Your task to perform on an android device: search for starred emails in the gmail app Image 0: 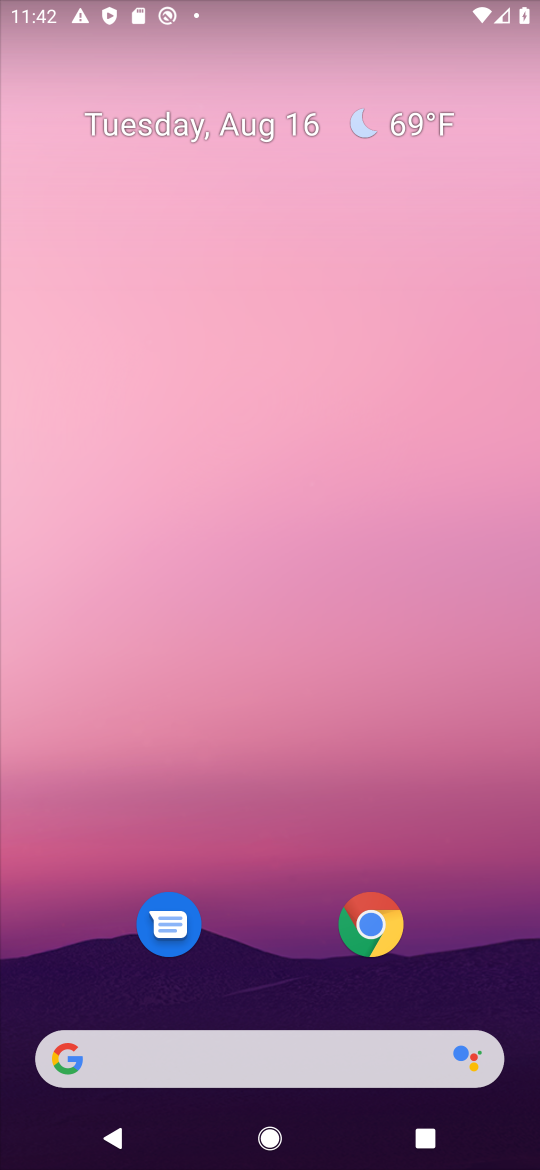
Step 0: drag from (265, 773) to (221, 311)
Your task to perform on an android device: search for starred emails in the gmail app Image 1: 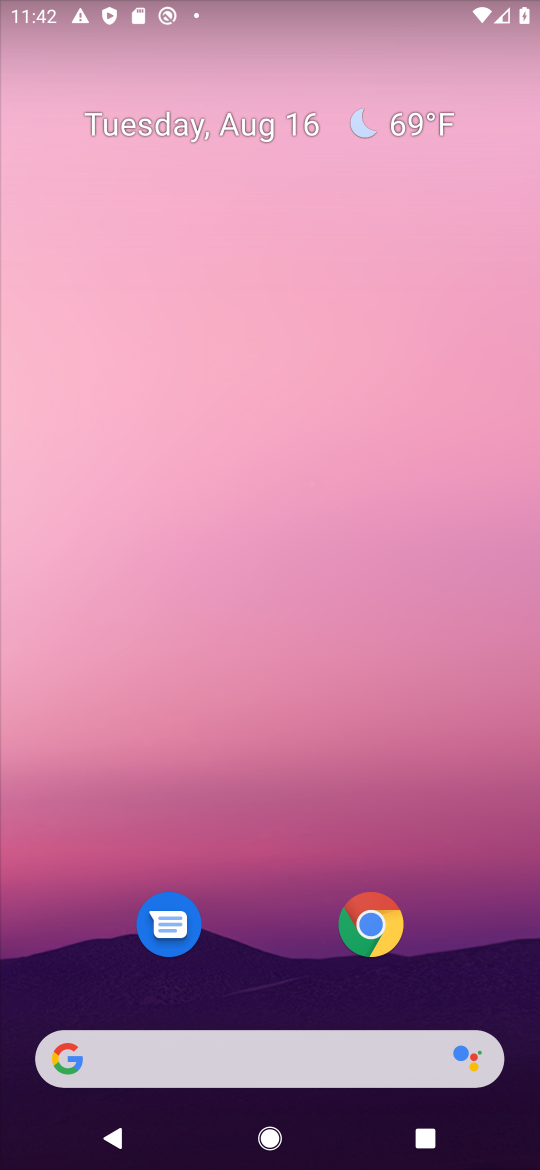
Step 1: drag from (266, 992) to (310, 11)
Your task to perform on an android device: search for starred emails in the gmail app Image 2: 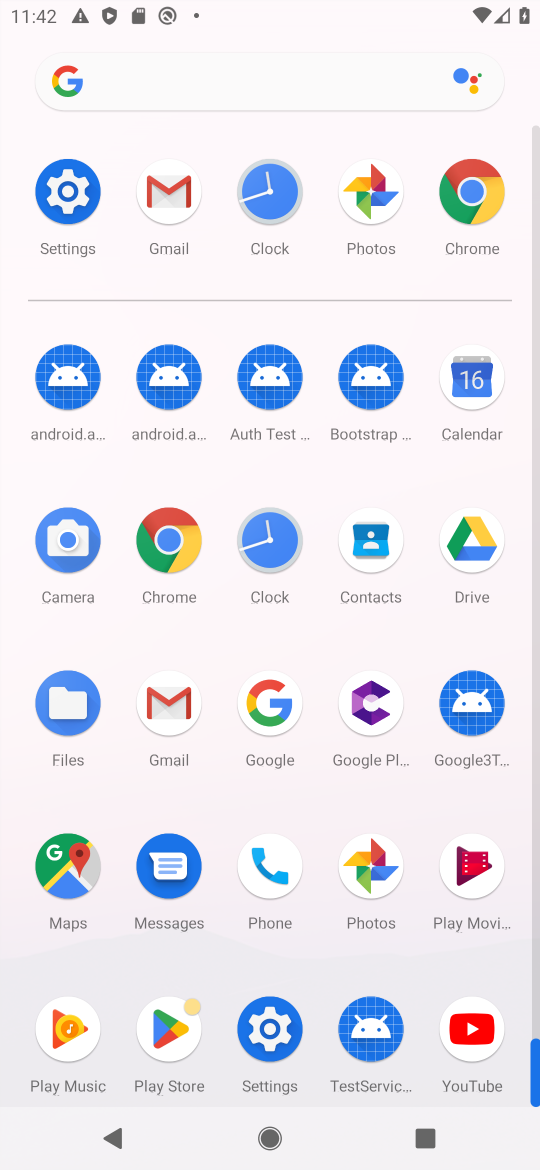
Step 2: click (161, 252)
Your task to perform on an android device: search for starred emails in the gmail app Image 3: 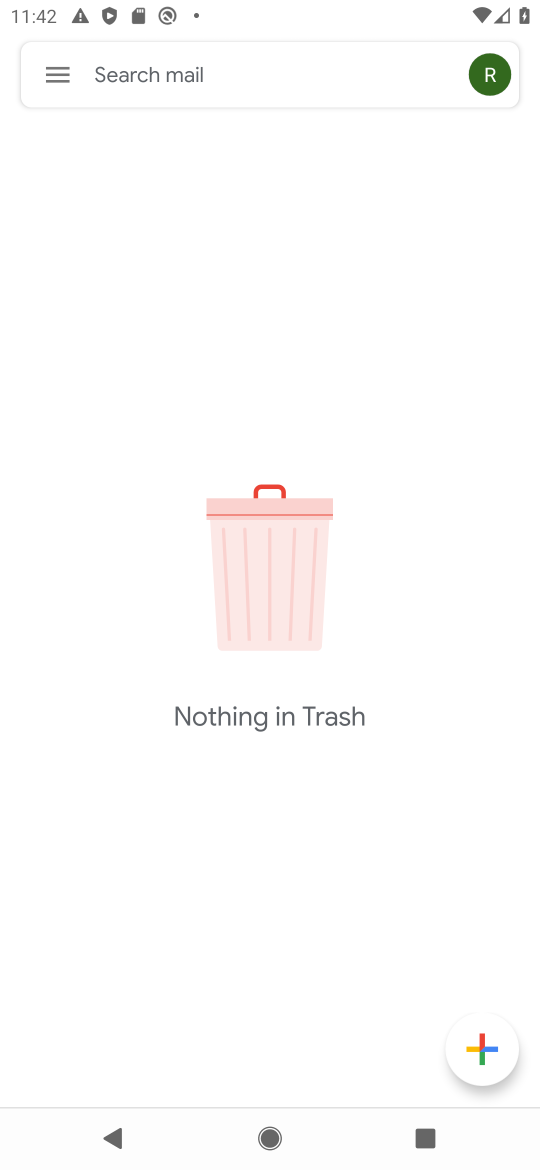
Step 3: click (59, 59)
Your task to perform on an android device: search for starred emails in the gmail app Image 4: 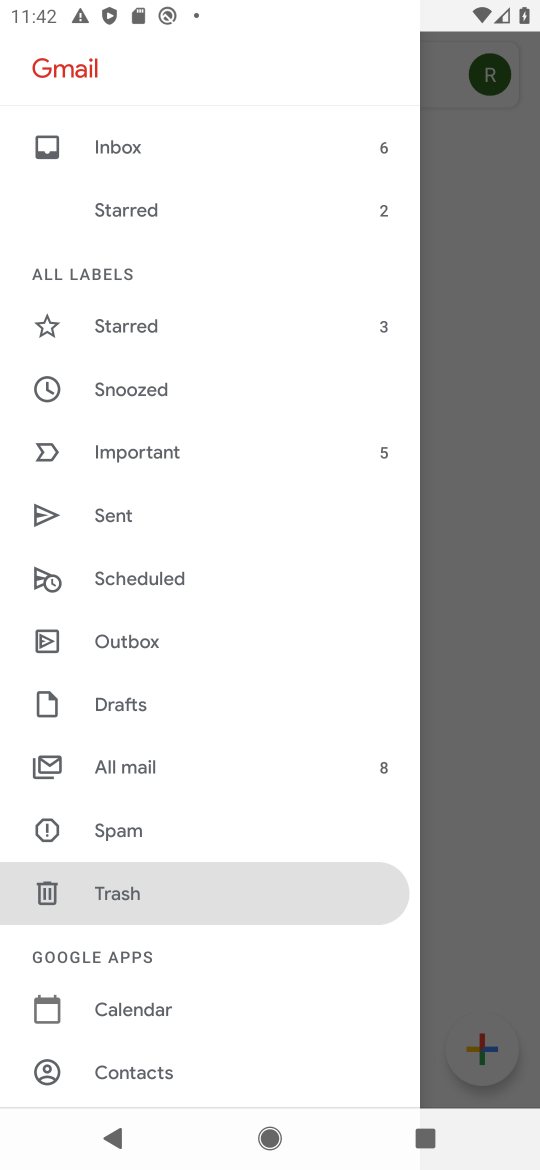
Step 4: click (203, 332)
Your task to perform on an android device: search for starred emails in the gmail app Image 5: 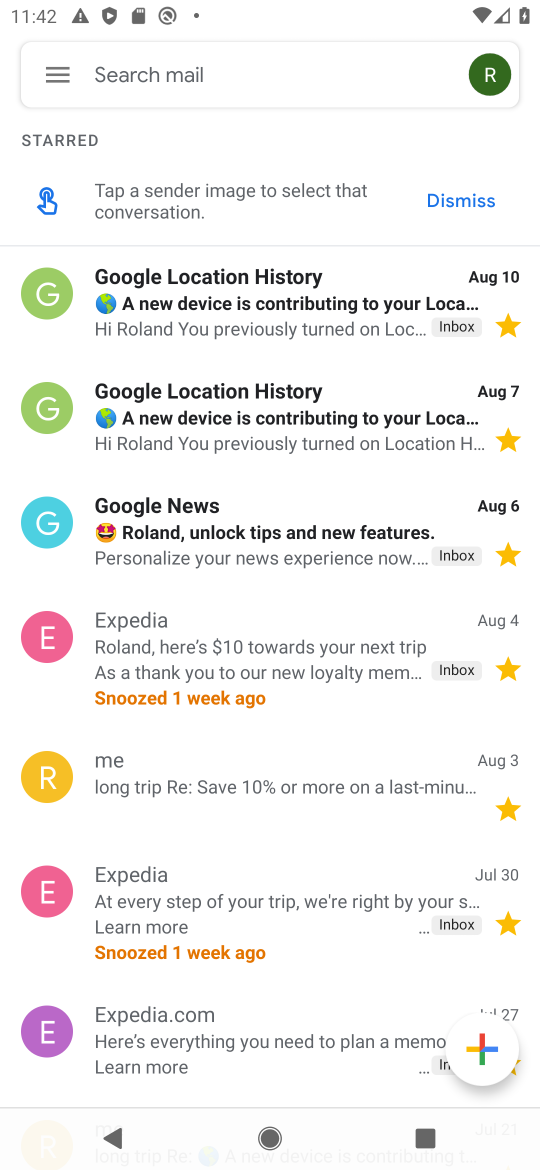
Step 5: task complete